Your task to perform on an android device: Go to eBay Image 0: 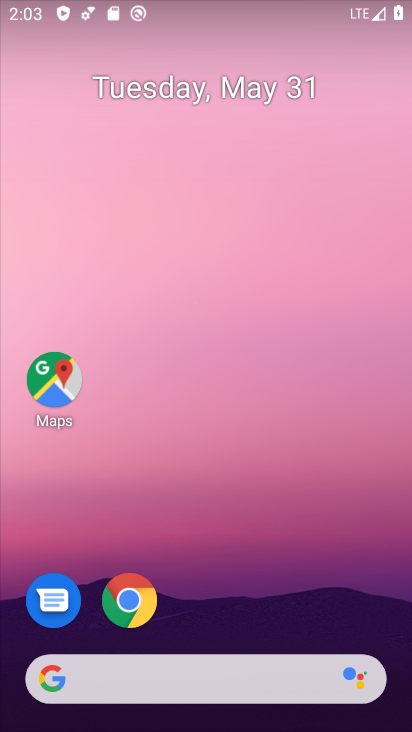
Step 0: press home button
Your task to perform on an android device: Go to eBay Image 1: 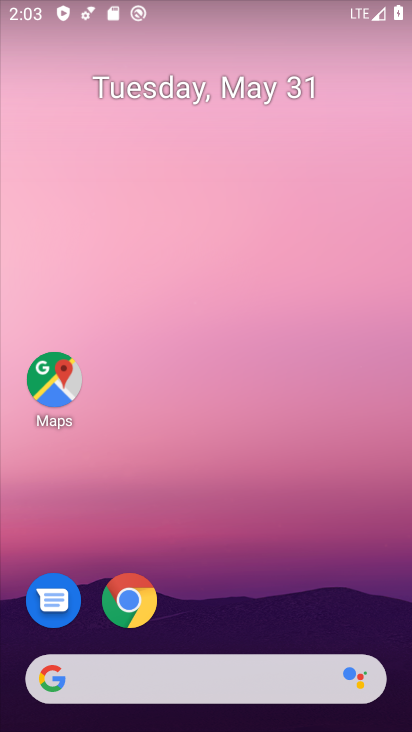
Step 1: drag from (238, 632) to (247, 67)
Your task to perform on an android device: Go to eBay Image 2: 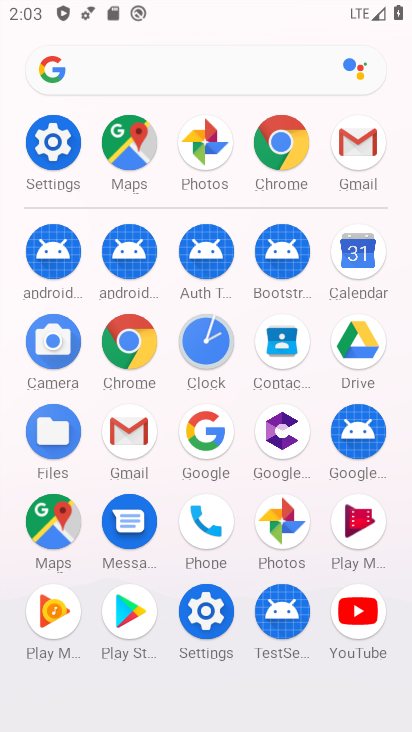
Step 2: click (126, 342)
Your task to perform on an android device: Go to eBay Image 3: 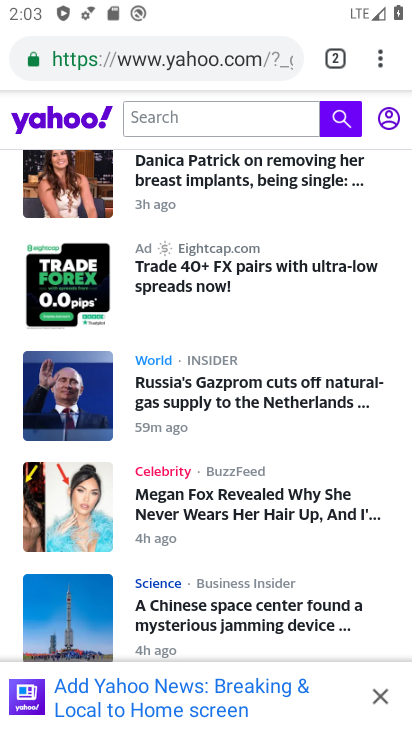
Step 3: click (327, 54)
Your task to perform on an android device: Go to eBay Image 4: 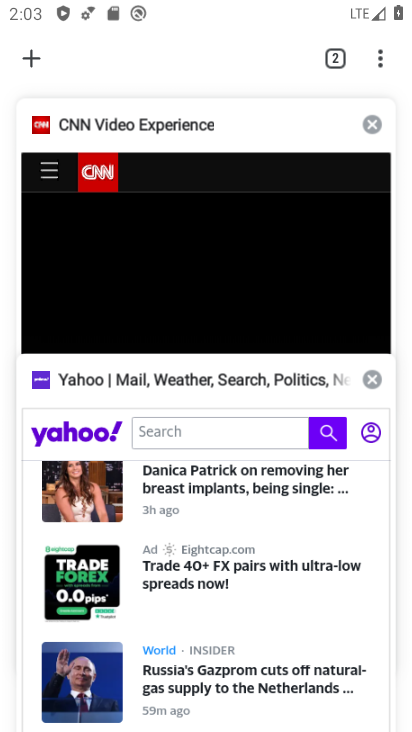
Step 4: click (371, 120)
Your task to perform on an android device: Go to eBay Image 5: 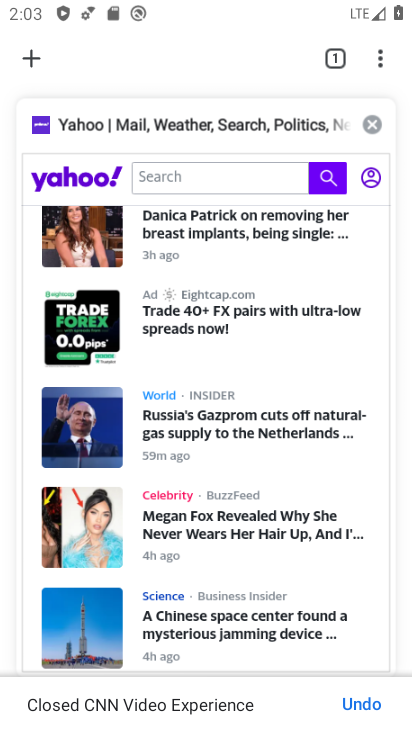
Step 5: click (371, 120)
Your task to perform on an android device: Go to eBay Image 6: 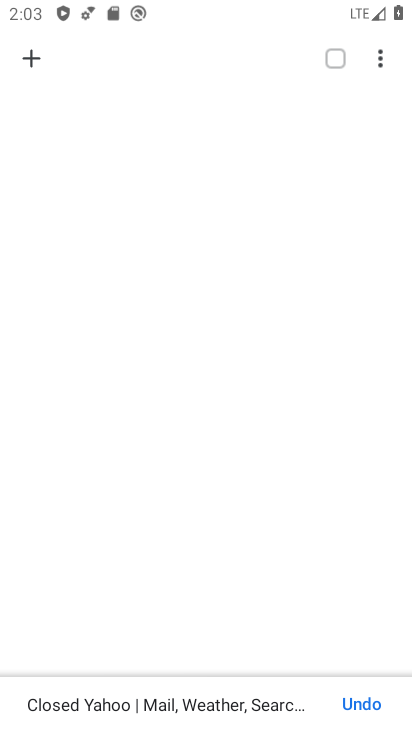
Step 6: click (39, 56)
Your task to perform on an android device: Go to eBay Image 7: 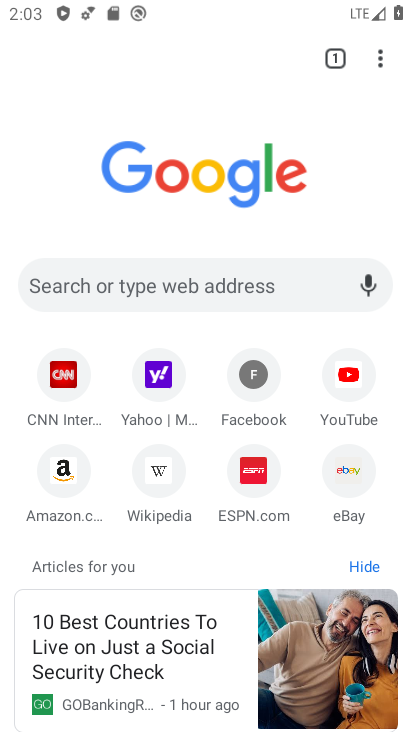
Step 7: click (348, 465)
Your task to perform on an android device: Go to eBay Image 8: 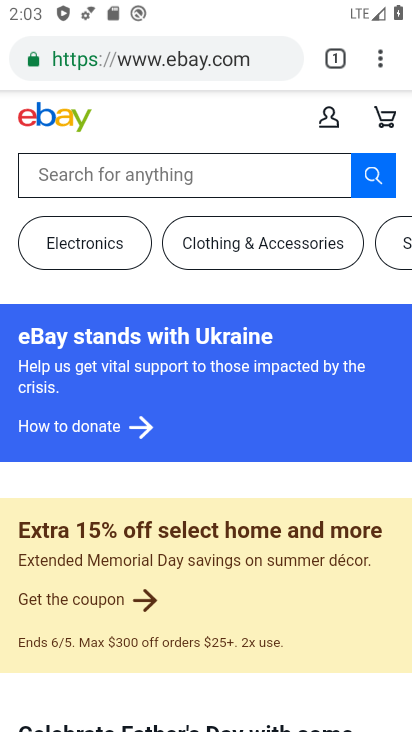
Step 8: task complete